Your task to perform on an android device: delete location history Image 0: 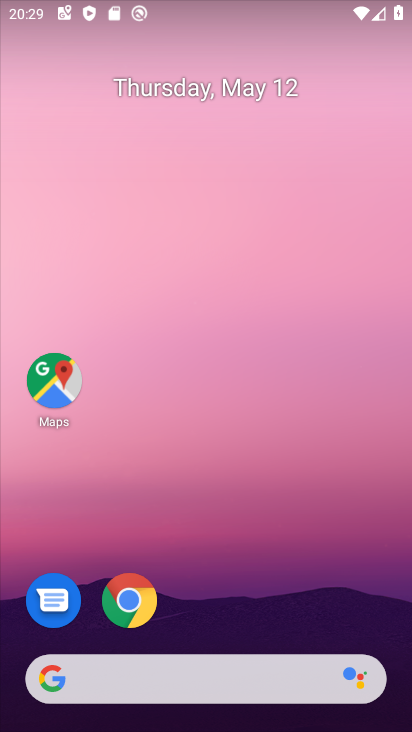
Step 0: drag from (242, 619) to (166, 82)
Your task to perform on an android device: delete location history Image 1: 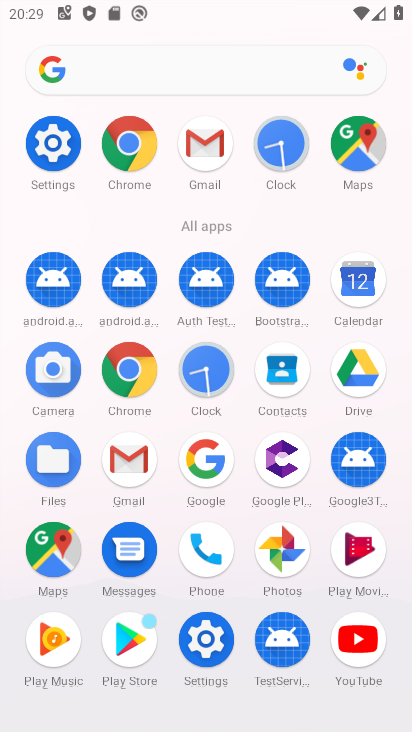
Step 1: click (44, 150)
Your task to perform on an android device: delete location history Image 2: 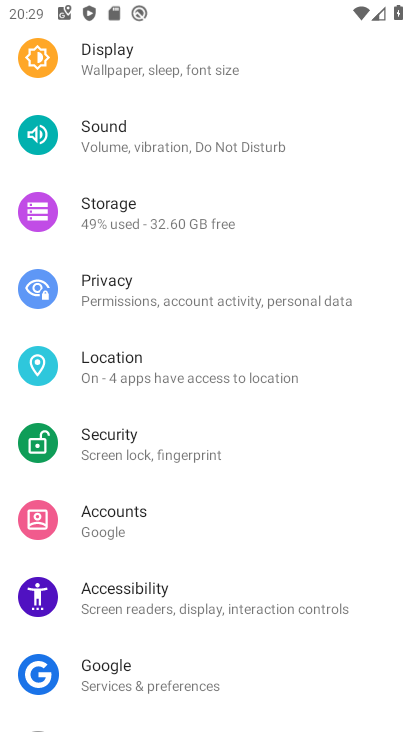
Step 2: click (133, 388)
Your task to perform on an android device: delete location history Image 3: 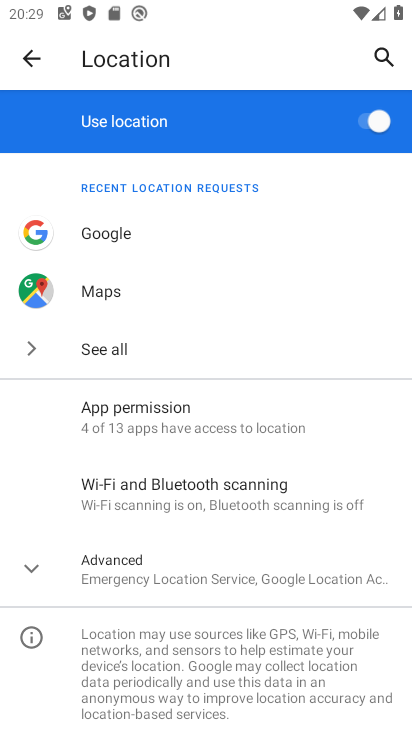
Step 3: click (113, 580)
Your task to perform on an android device: delete location history Image 4: 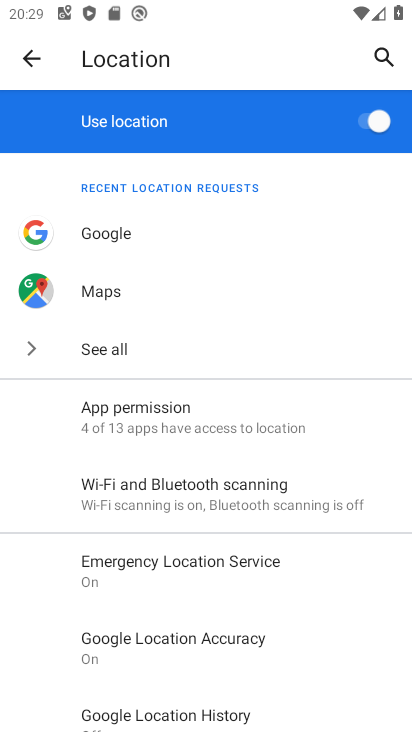
Step 4: drag from (137, 685) to (199, 494)
Your task to perform on an android device: delete location history Image 5: 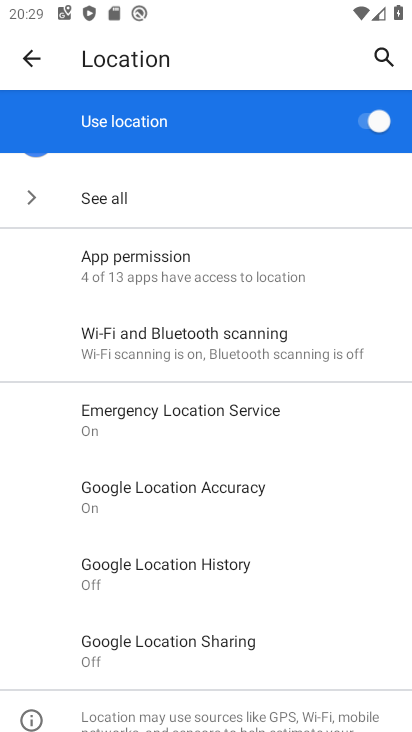
Step 5: click (178, 582)
Your task to perform on an android device: delete location history Image 6: 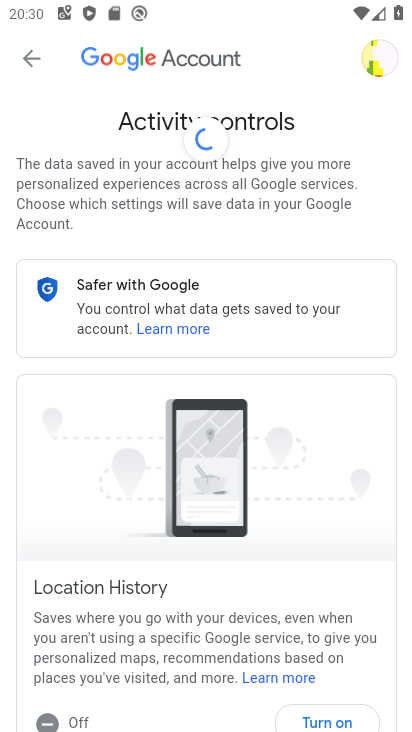
Step 6: drag from (179, 660) to (219, 441)
Your task to perform on an android device: delete location history Image 7: 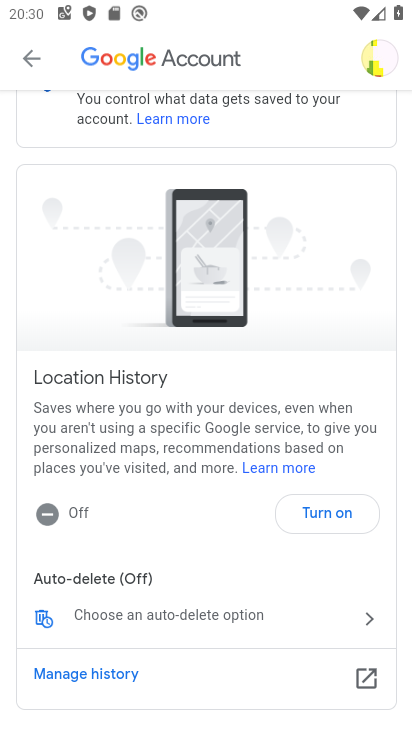
Step 7: click (87, 680)
Your task to perform on an android device: delete location history Image 8: 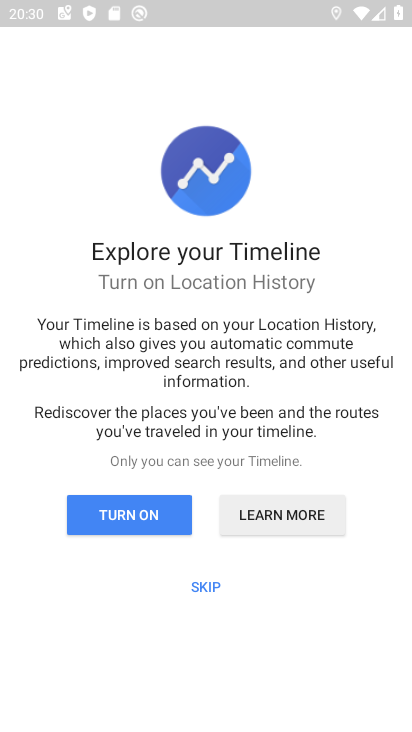
Step 8: click (200, 591)
Your task to perform on an android device: delete location history Image 9: 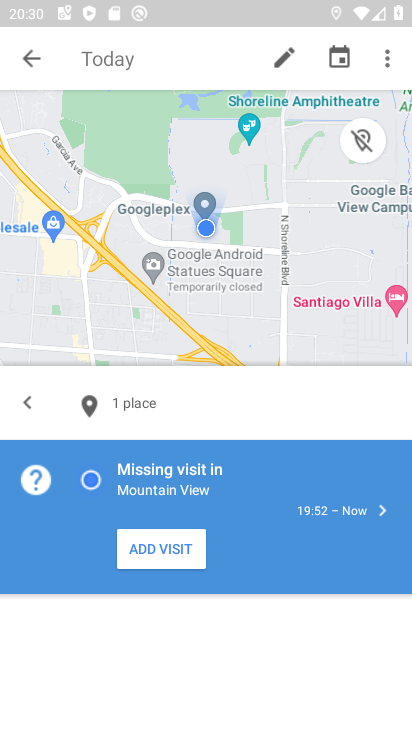
Step 9: click (388, 67)
Your task to perform on an android device: delete location history Image 10: 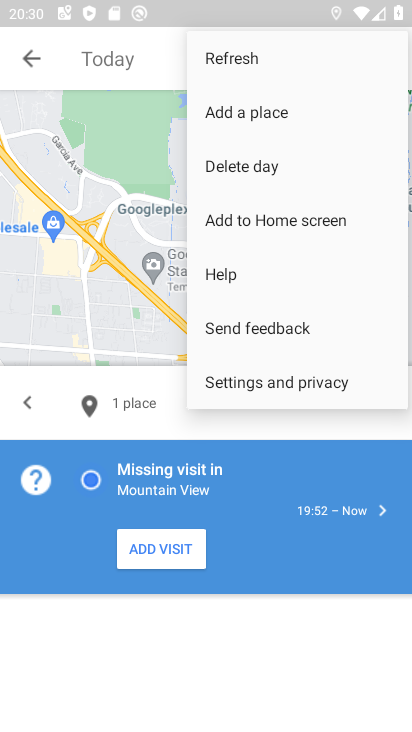
Step 10: click (237, 379)
Your task to perform on an android device: delete location history Image 11: 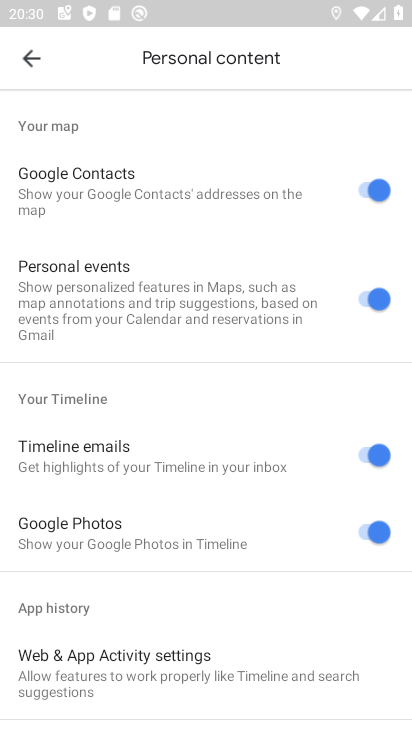
Step 11: drag from (141, 638) to (199, 244)
Your task to perform on an android device: delete location history Image 12: 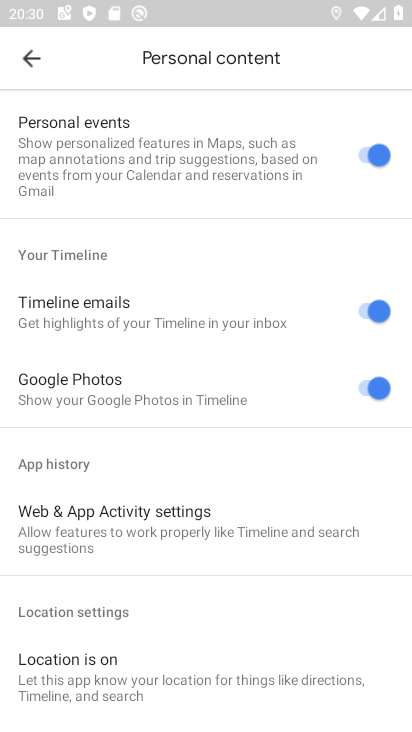
Step 12: drag from (114, 622) to (176, 234)
Your task to perform on an android device: delete location history Image 13: 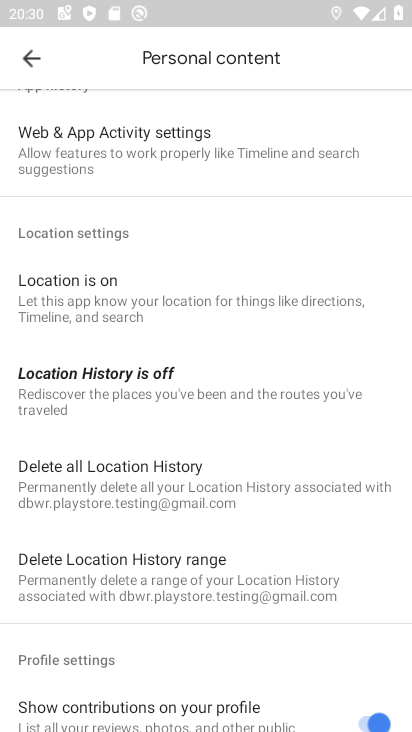
Step 13: click (145, 490)
Your task to perform on an android device: delete location history Image 14: 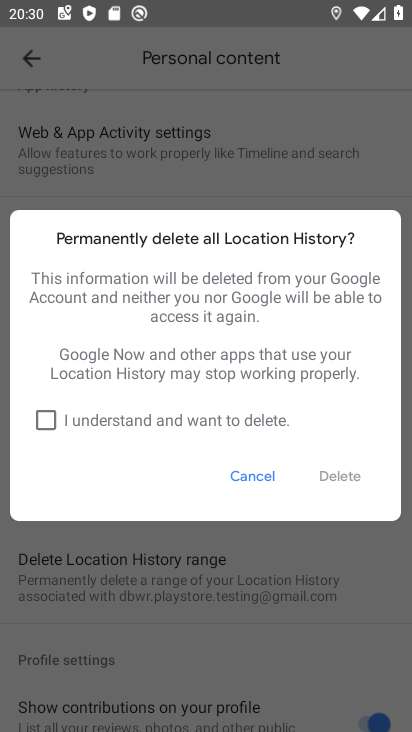
Step 14: click (43, 416)
Your task to perform on an android device: delete location history Image 15: 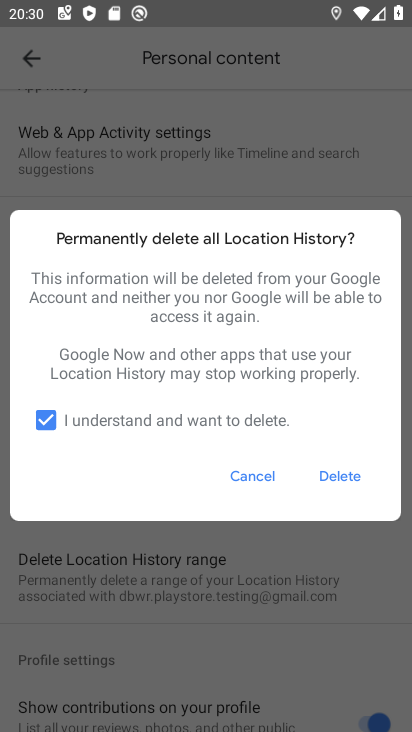
Step 15: click (333, 482)
Your task to perform on an android device: delete location history Image 16: 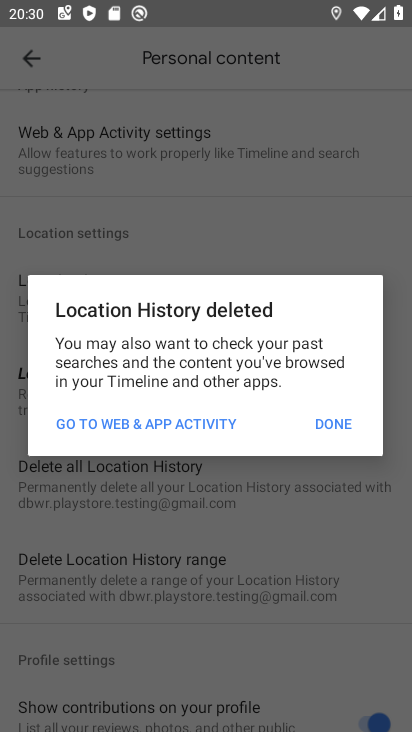
Step 16: click (323, 432)
Your task to perform on an android device: delete location history Image 17: 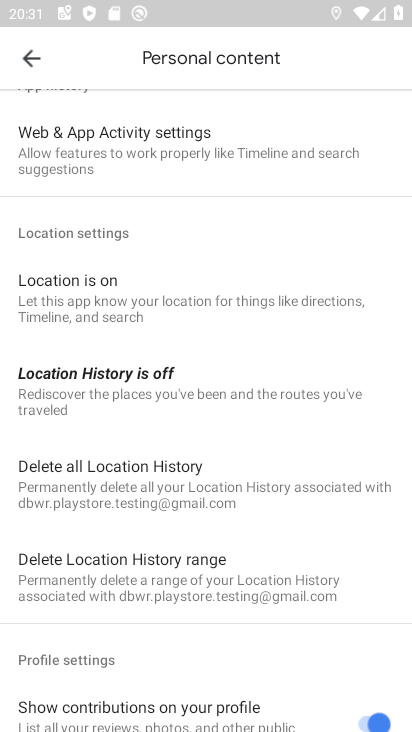
Step 17: task complete